Your task to perform on an android device: turn on data saver in the chrome app Image 0: 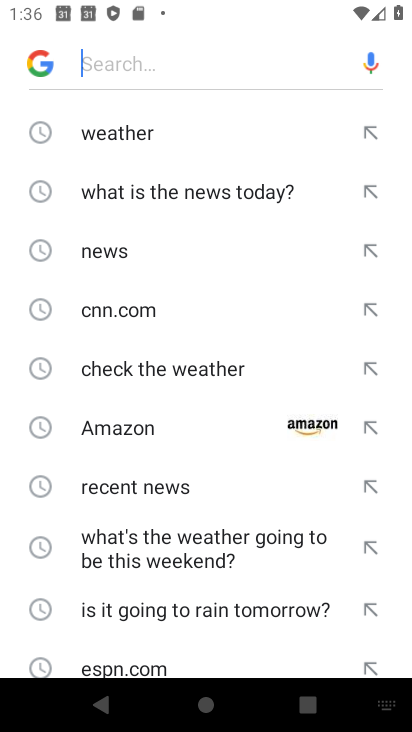
Step 0: press home button
Your task to perform on an android device: turn on data saver in the chrome app Image 1: 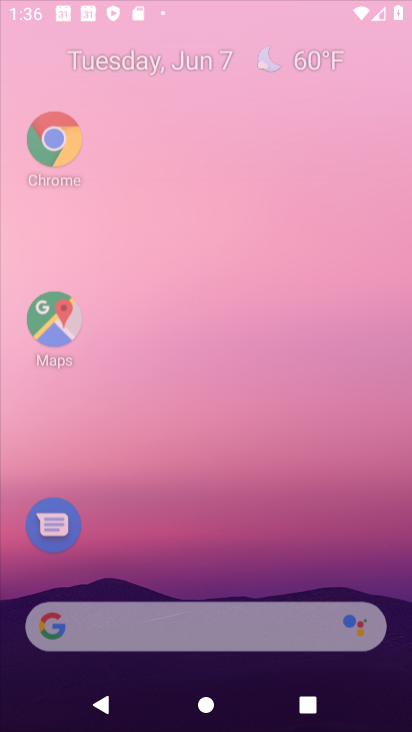
Step 1: drag from (184, 578) to (265, 106)
Your task to perform on an android device: turn on data saver in the chrome app Image 2: 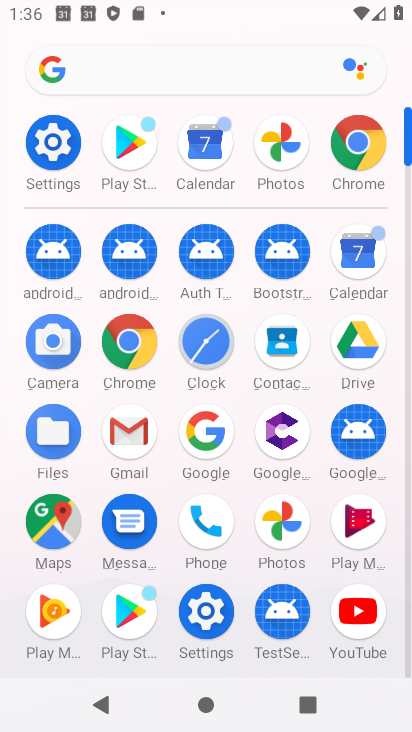
Step 2: click (360, 130)
Your task to perform on an android device: turn on data saver in the chrome app Image 3: 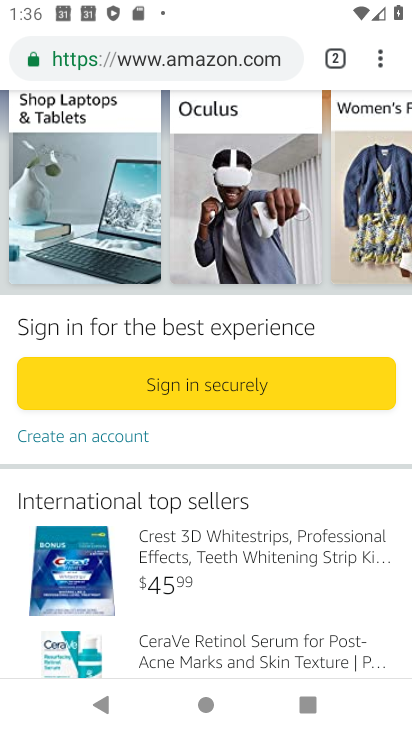
Step 3: drag from (378, 59) to (200, 566)
Your task to perform on an android device: turn on data saver in the chrome app Image 4: 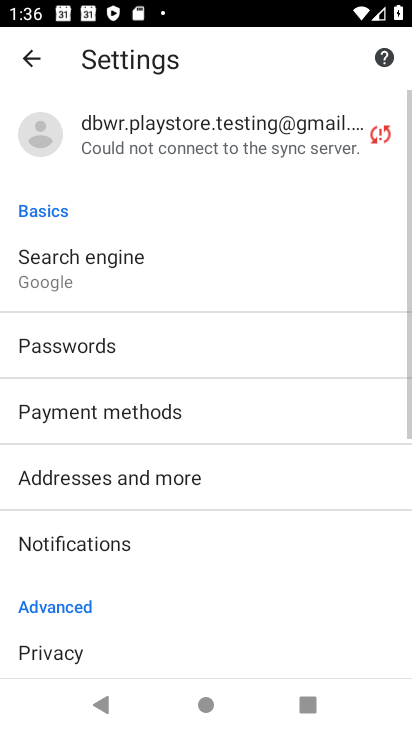
Step 4: drag from (14, 515) to (184, 100)
Your task to perform on an android device: turn on data saver in the chrome app Image 5: 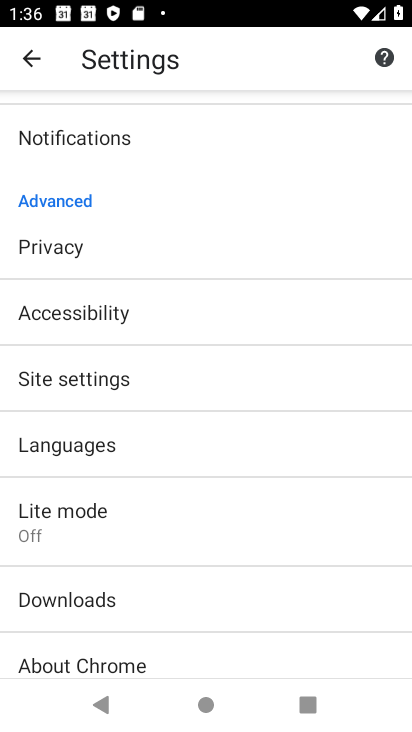
Step 5: click (94, 519)
Your task to perform on an android device: turn on data saver in the chrome app Image 6: 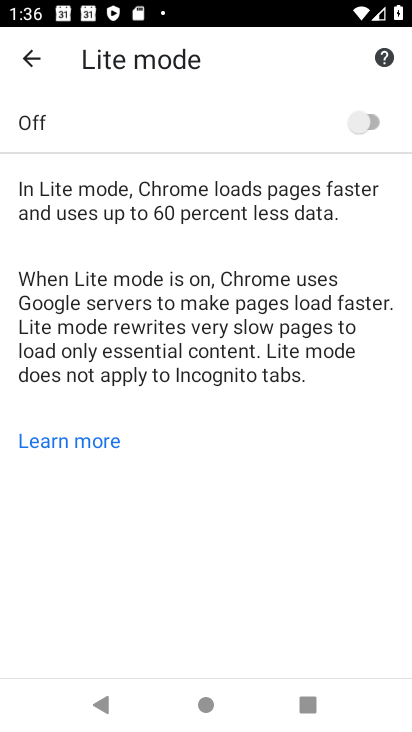
Step 6: click (346, 117)
Your task to perform on an android device: turn on data saver in the chrome app Image 7: 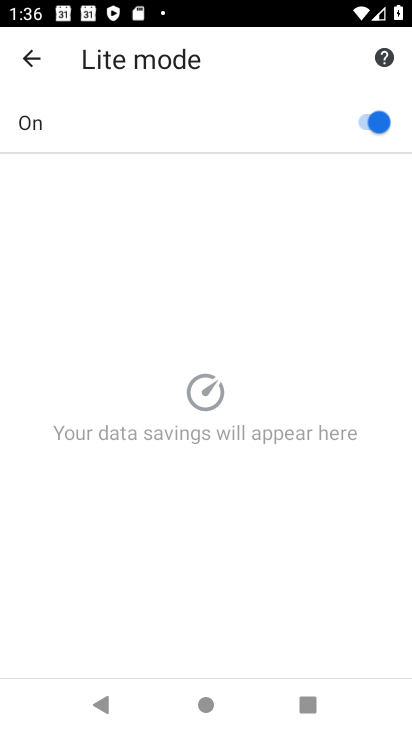
Step 7: task complete